Your task to perform on an android device: When is my next meeting? Image 0: 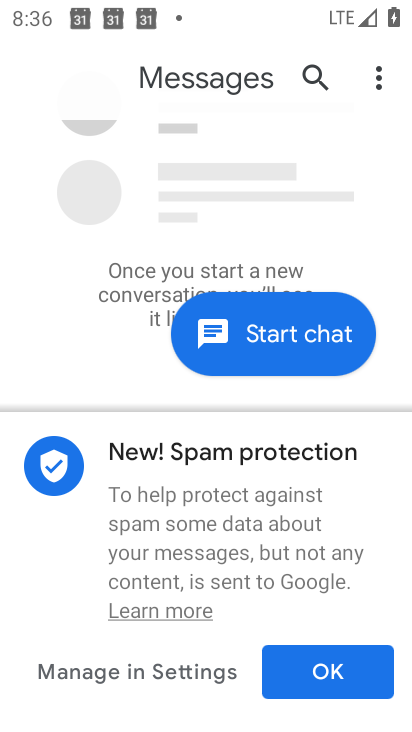
Step 0: press home button
Your task to perform on an android device: When is my next meeting? Image 1: 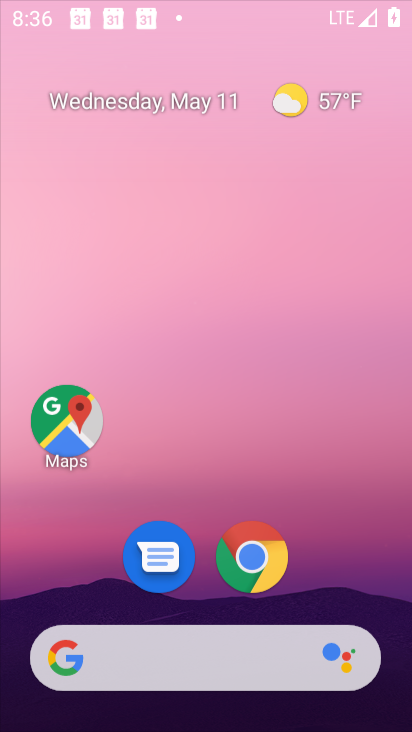
Step 1: press home button
Your task to perform on an android device: When is my next meeting? Image 2: 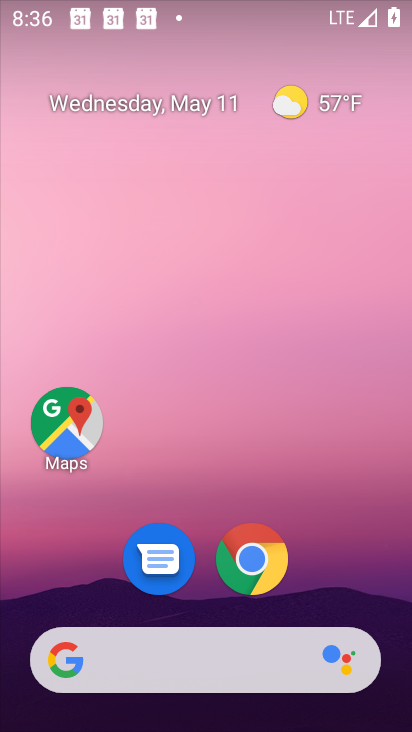
Step 2: drag from (363, 589) to (400, 10)
Your task to perform on an android device: When is my next meeting? Image 3: 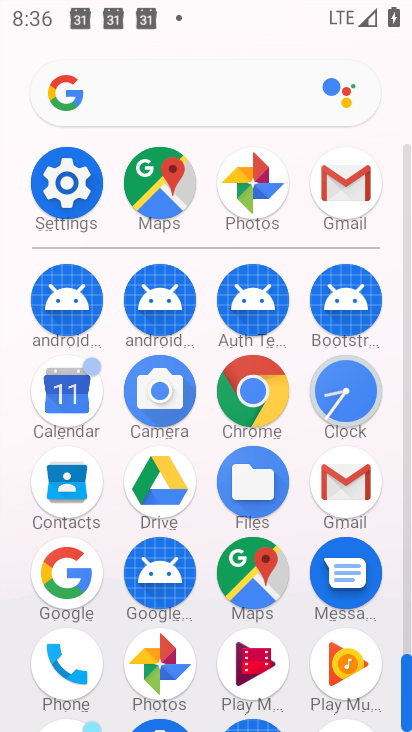
Step 3: click (50, 414)
Your task to perform on an android device: When is my next meeting? Image 4: 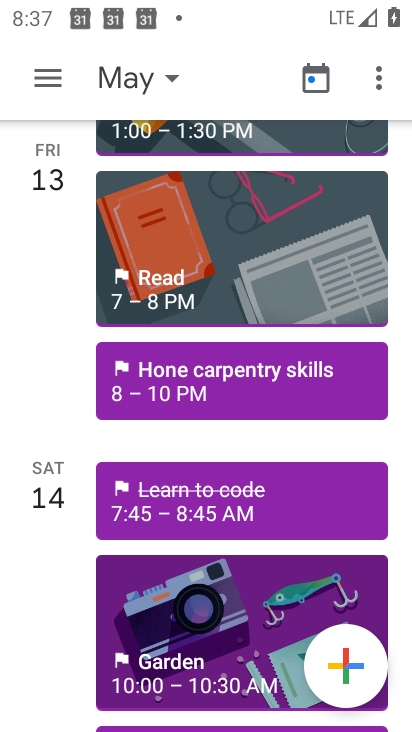
Step 4: task complete